Your task to perform on an android device: Go to Yahoo.com Image 0: 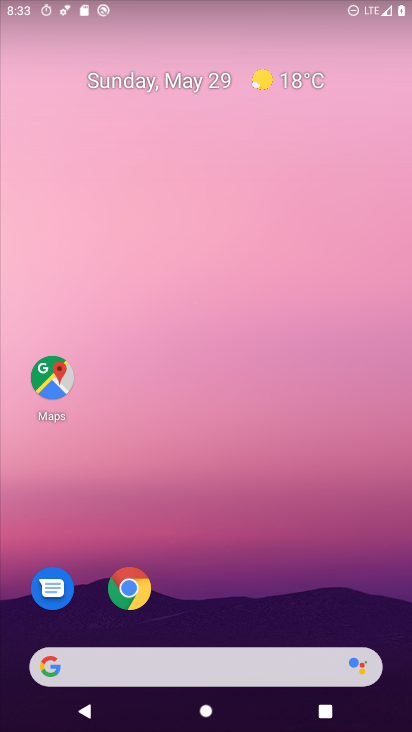
Step 0: click (129, 589)
Your task to perform on an android device: Go to Yahoo.com Image 1: 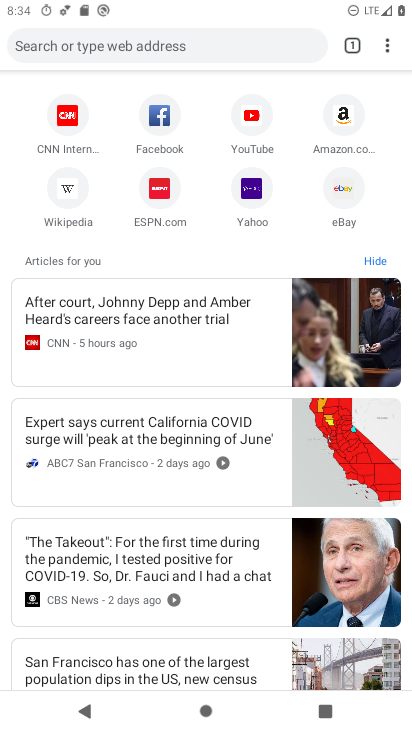
Step 1: click (256, 195)
Your task to perform on an android device: Go to Yahoo.com Image 2: 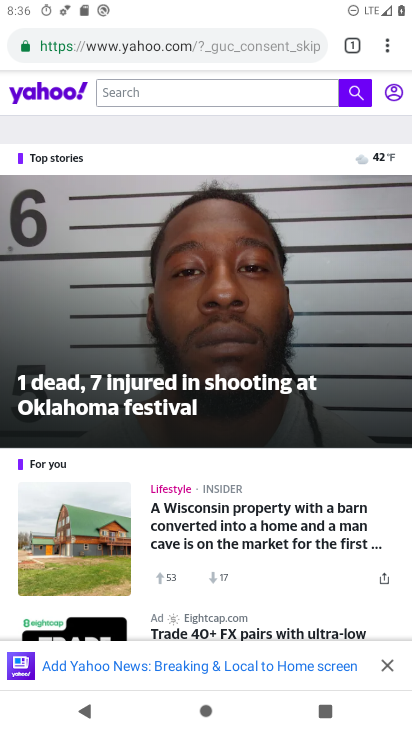
Step 2: task complete